Your task to perform on an android device: turn off priority inbox in the gmail app Image 0: 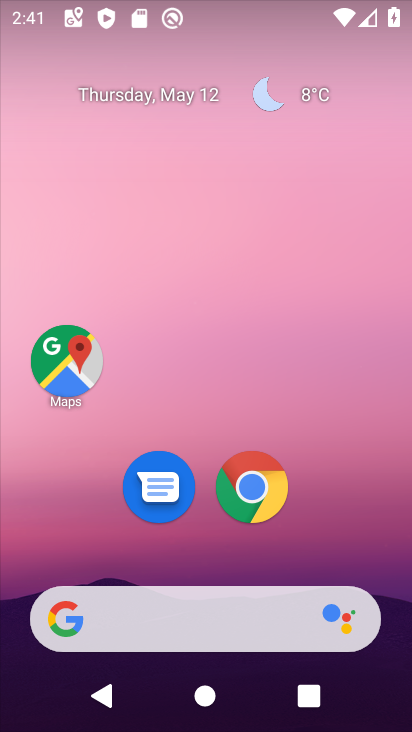
Step 0: drag from (333, 533) to (290, 21)
Your task to perform on an android device: turn off priority inbox in the gmail app Image 1: 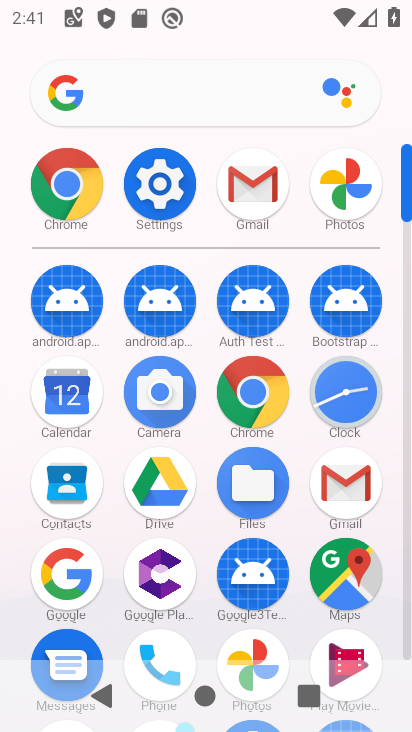
Step 1: click (239, 186)
Your task to perform on an android device: turn off priority inbox in the gmail app Image 2: 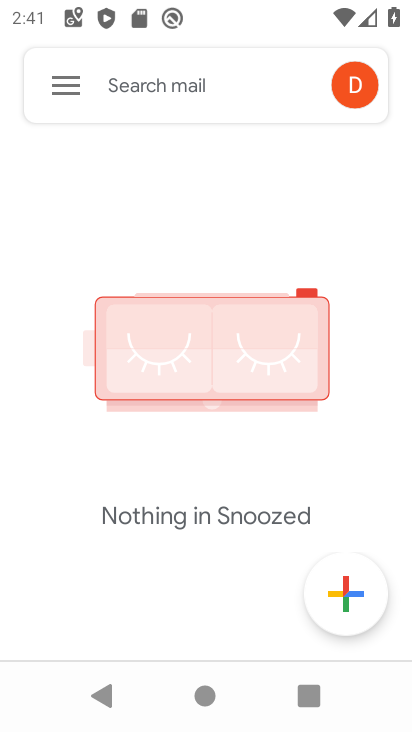
Step 2: click (72, 88)
Your task to perform on an android device: turn off priority inbox in the gmail app Image 3: 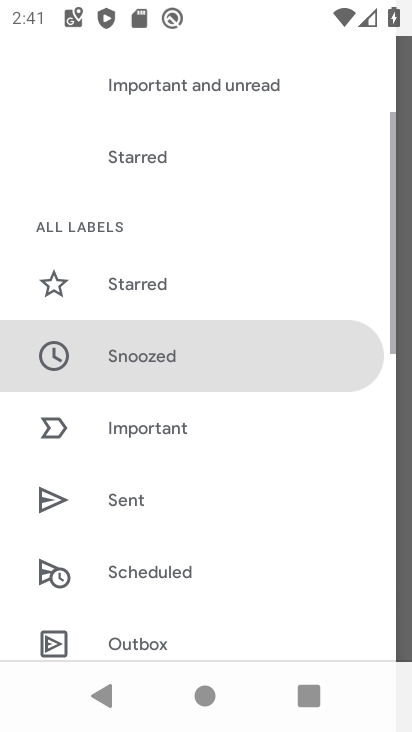
Step 3: drag from (153, 623) to (306, 69)
Your task to perform on an android device: turn off priority inbox in the gmail app Image 4: 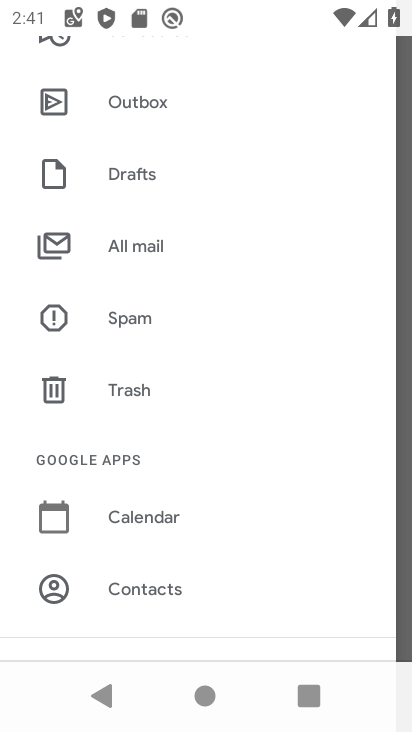
Step 4: drag from (163, 547) to (366, 94)
Your task to perform on an android device: turn off priority inbox in the gmail app Image 5: 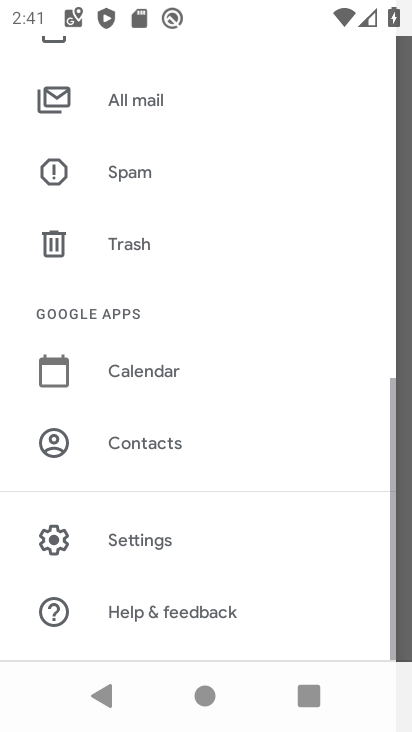
Step 5: click (164, 525)
Your task to perform on an android device: turn off priority inbox in the gmail app Image 6: 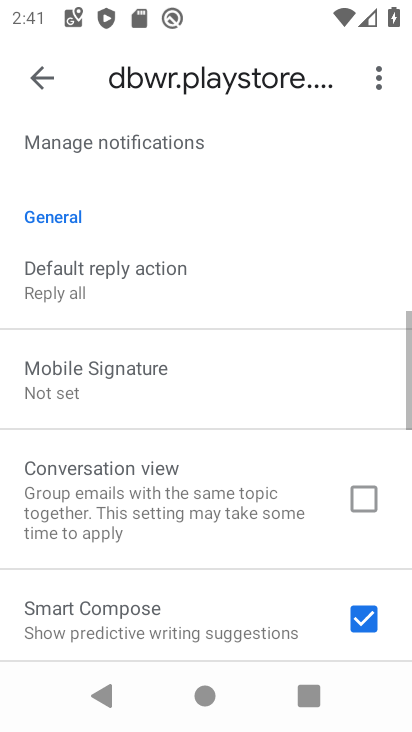
Step 6: drag from (149, 215) to (164, 704)
Your task to perform on an android device: turn off priority inbox in the gmail app Image 7: 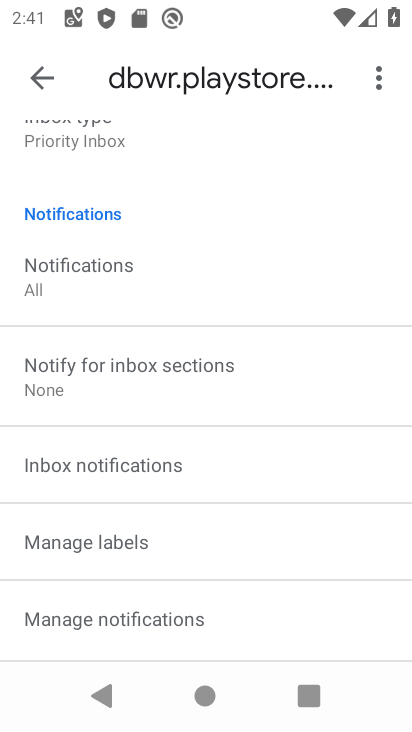
Step 7: drag from (167, 210) to (177, 612)
Your task to perform on an android device: turn off priority inbox in the gmail app Image 8: 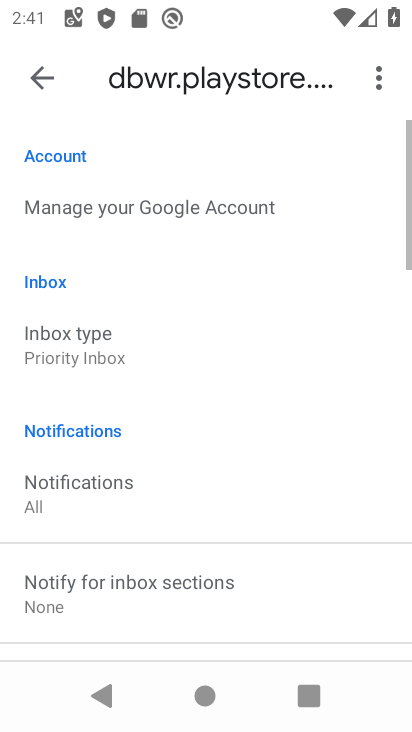
Step 8: click (82, 333)
Your task to perform on an android device: turn off priority inbox in the gmail app Image 9: 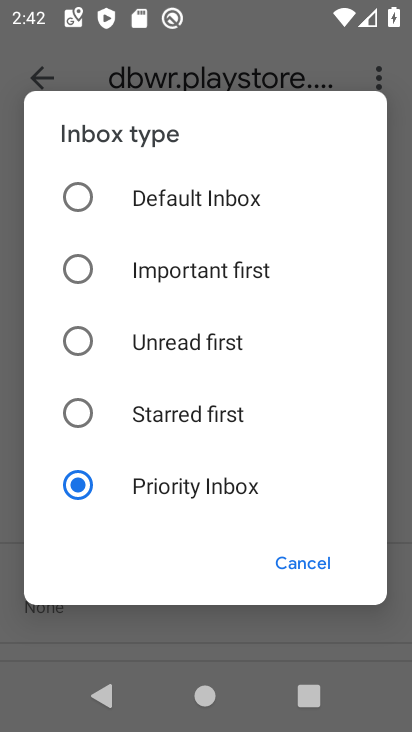
Step 9: task complete